Your task to perform on an android device: Go to internet settings Image 0: 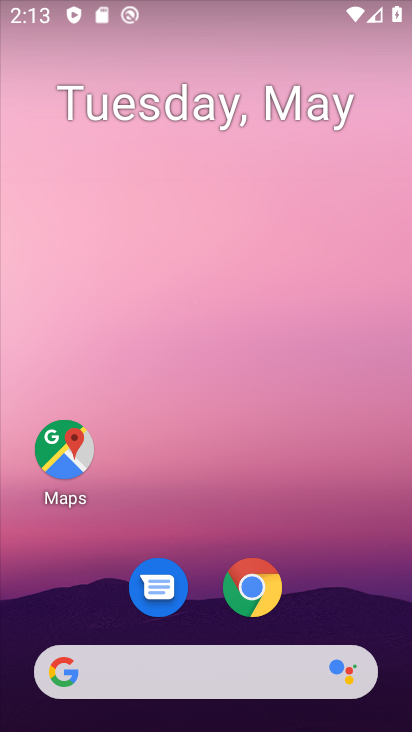
Step 0: drag from (205, 10) to (219, 431)
Your task to perform on an android device: Go to internet settings Image 1: 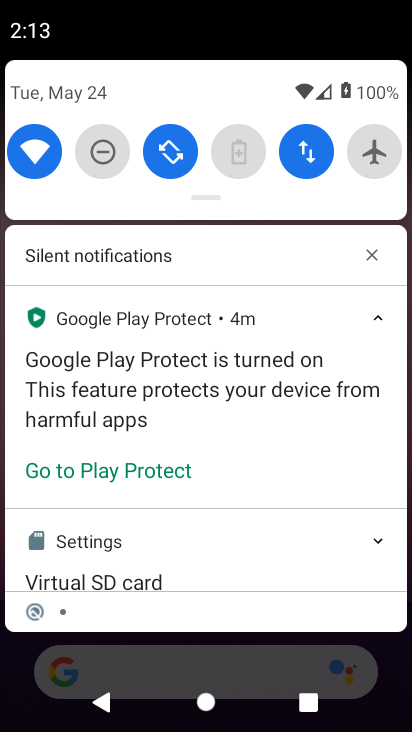
Step 1: click (310, 160)
Your task to perform on an android device: Go to internet settings Image 2: 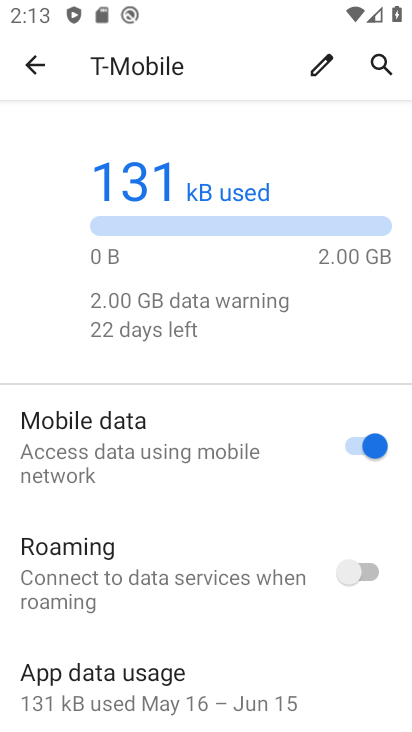
Step 2: task complete